Your task to perform on an android device: Open maps Image 0: 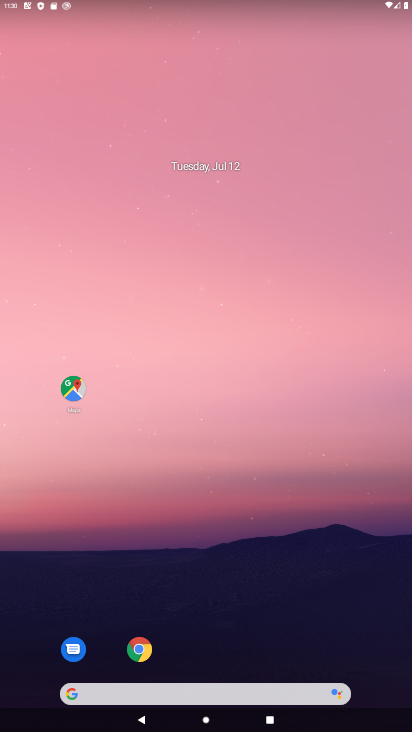
Step 0: press home button
Your task to perform on an android device: Open maps Image 1: 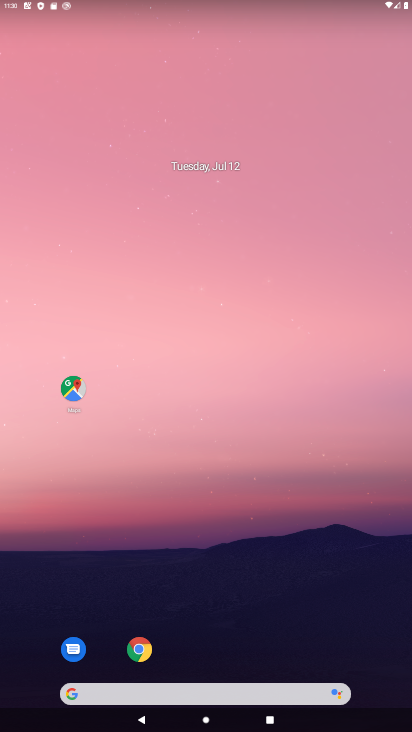
Step 1: drag from (235, 621) to (307, 72)
Your task to perform on an android device: Open maps Image 2: 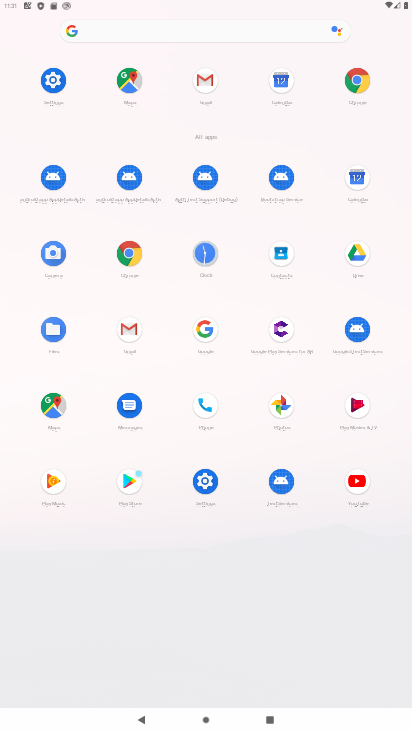
Step 2: click (48, 409)
Your task to perform on an android device: Open maps Image 3: 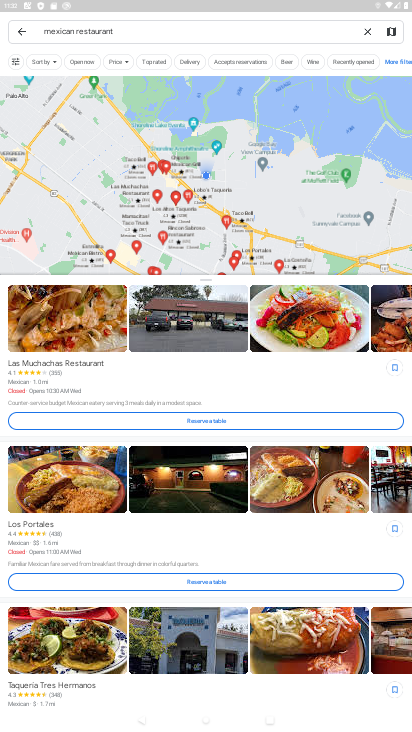
Step 3: task complete